Your task to perform on an android device: Open maps Image 0: 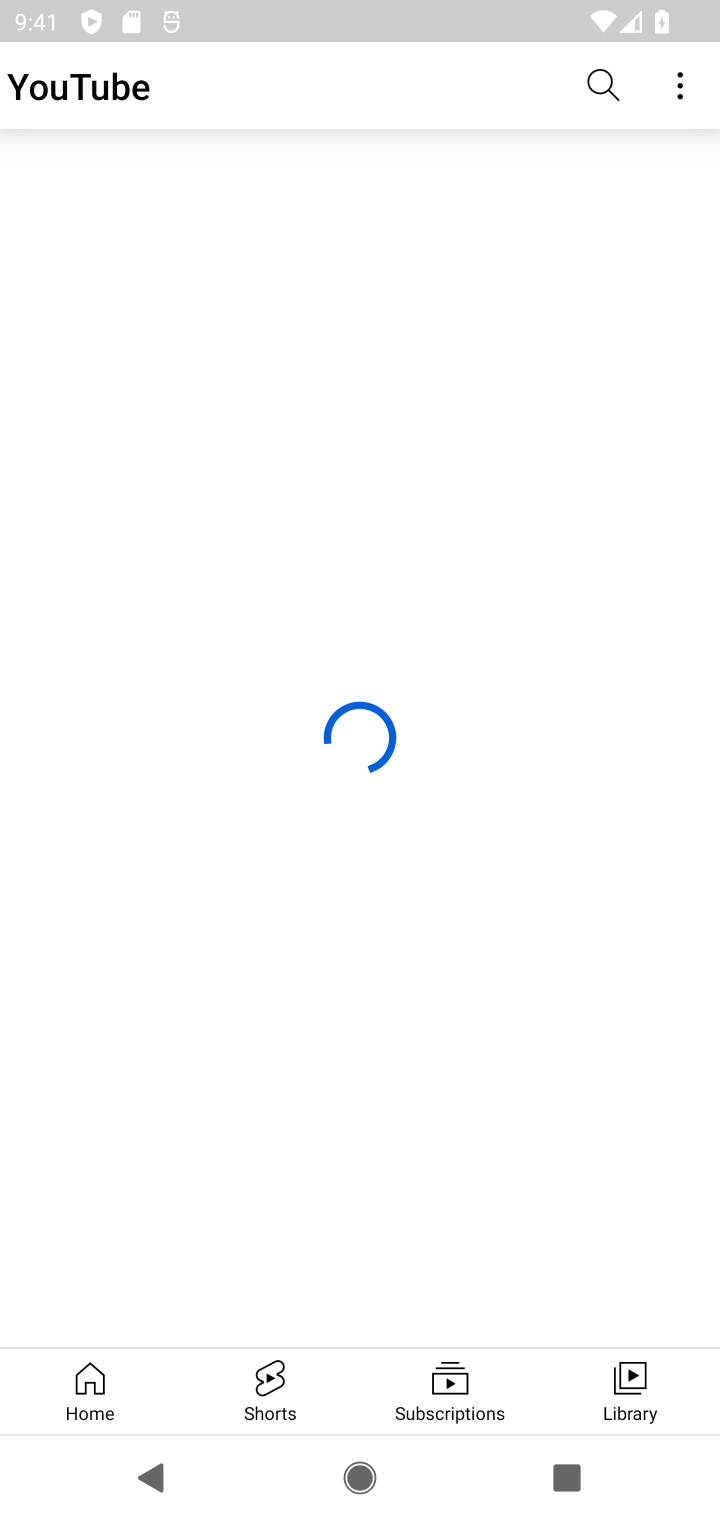
Step 0: click (505, 603)
Your task to perform on an android device: Open maps Image 1: 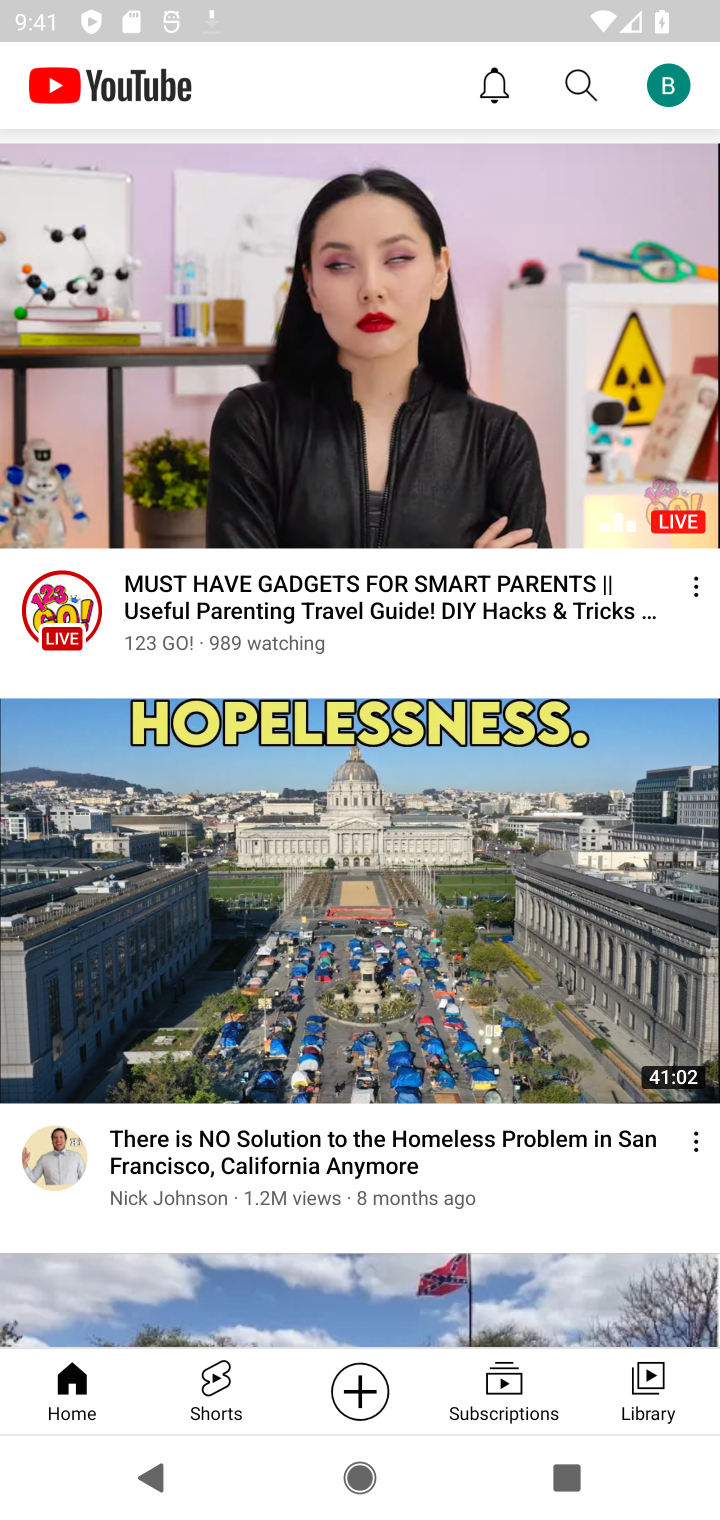
Step 1: press home button
Your task to perform on an android device: Open maps Image 2: 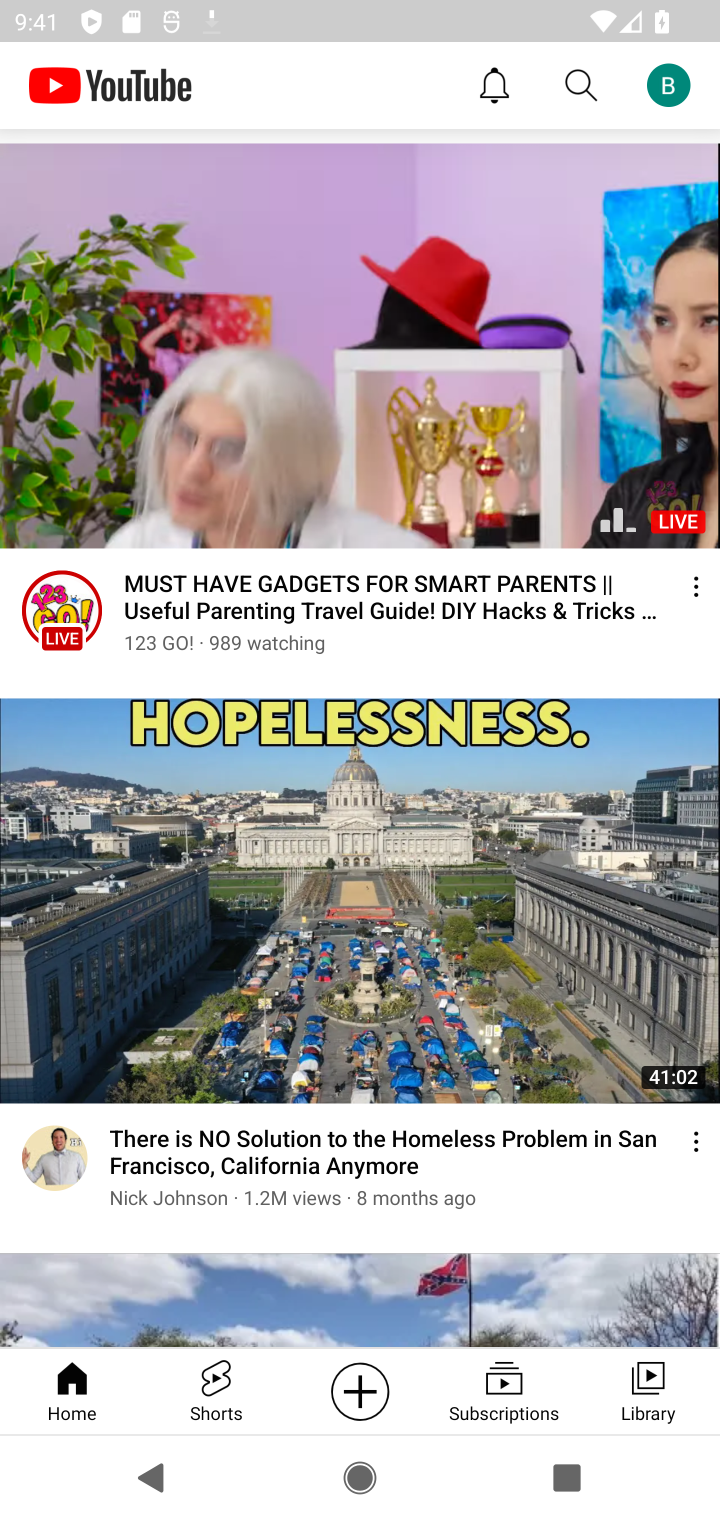
Step 2: click (371, 155)
Your task to perform on an android device: Open maps Image 3: 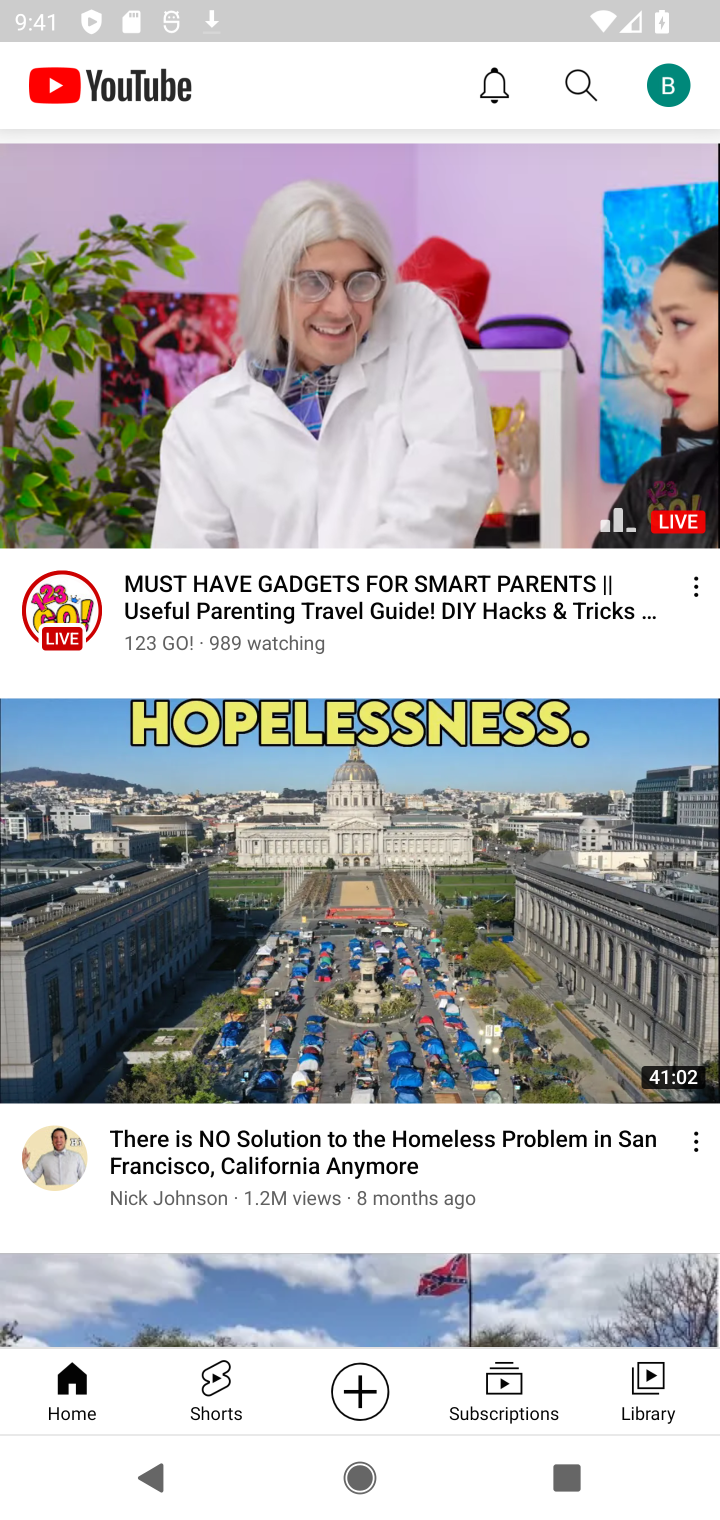
Step 3: drag from (243, 1199) to (464, 332)
Your task to perform on an android device: Open maps Image 4: 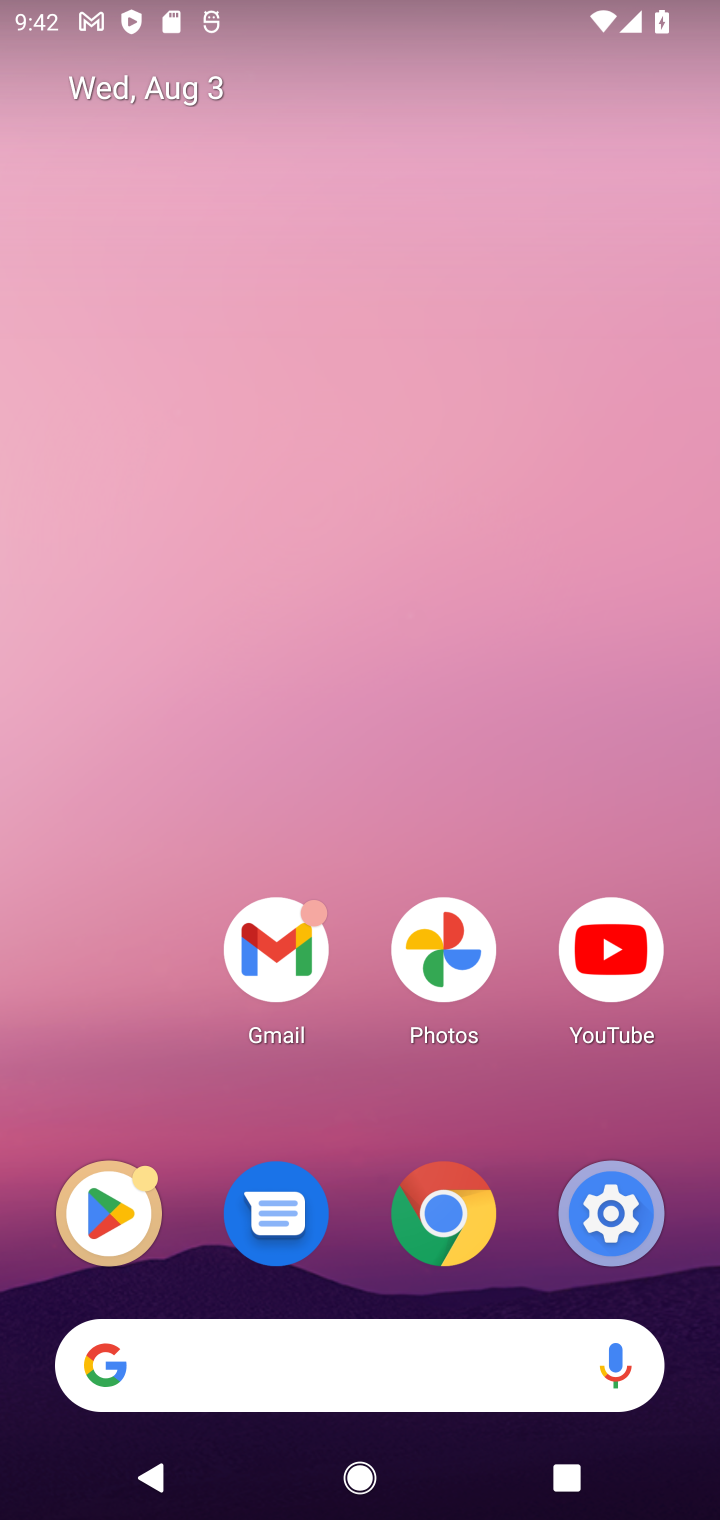
Step 4: click (432, 951)
Your task to perform on an android device: Open maps Image 5: 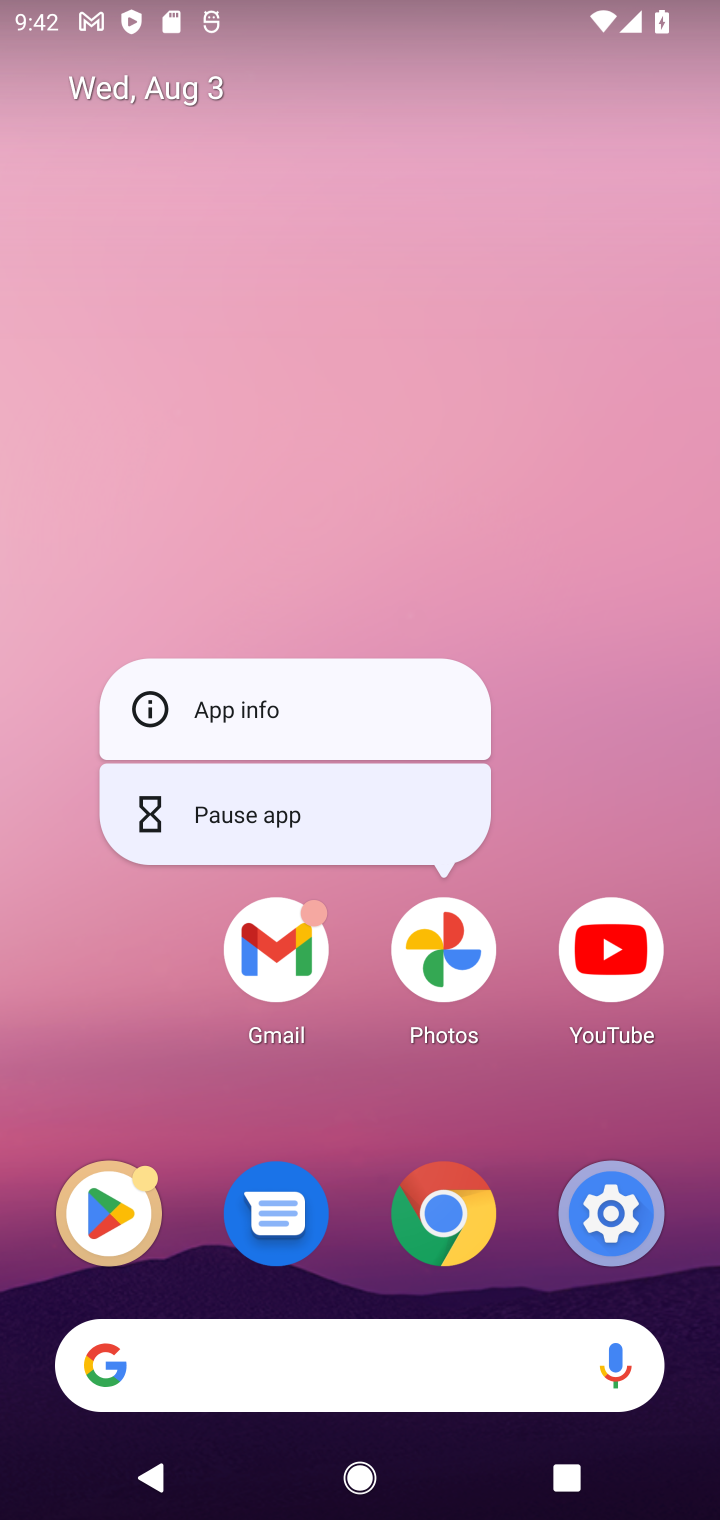
Step 5: click (253, 714)
Your task to perform on an android device: Open maps Image 6: 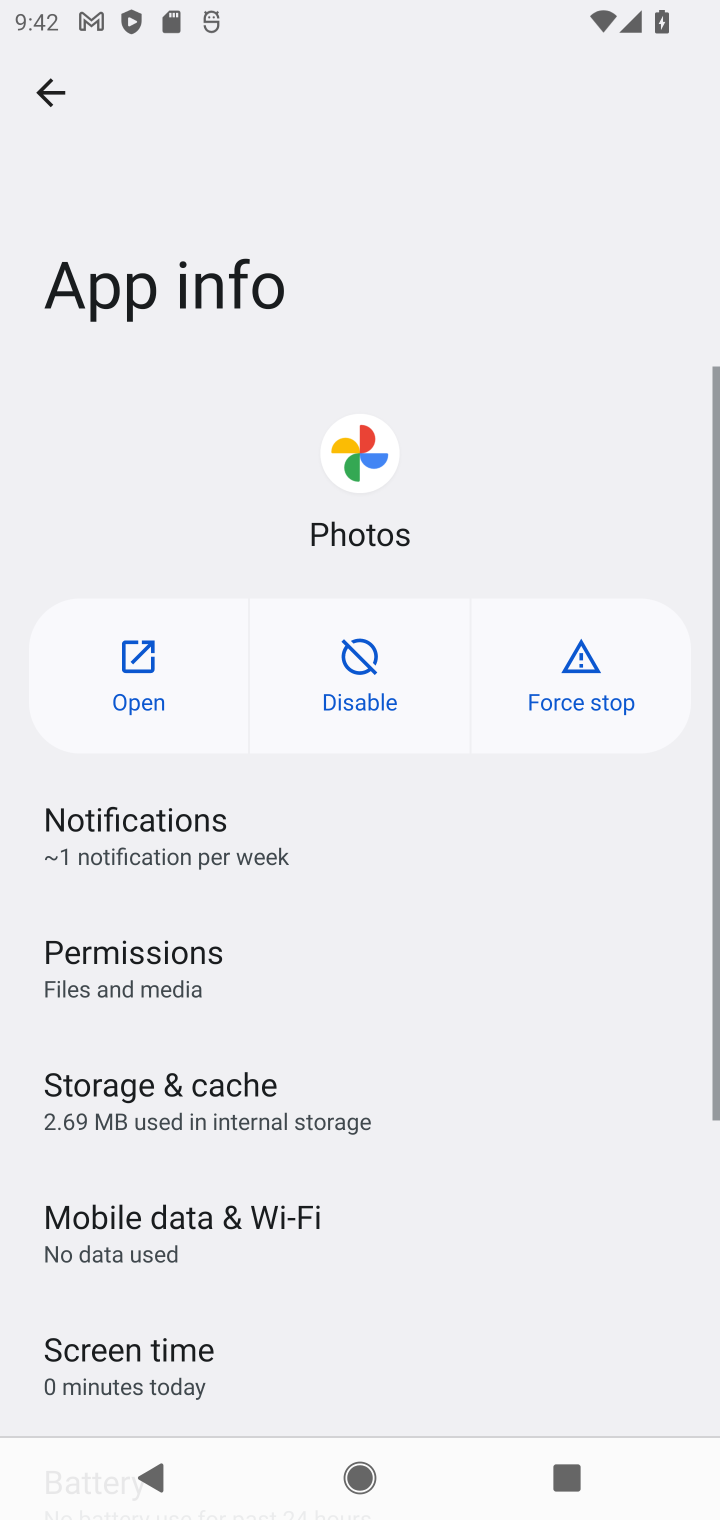
Step 6: click (161, 710)
Your task to perform on an android device: Open maps Image 7: 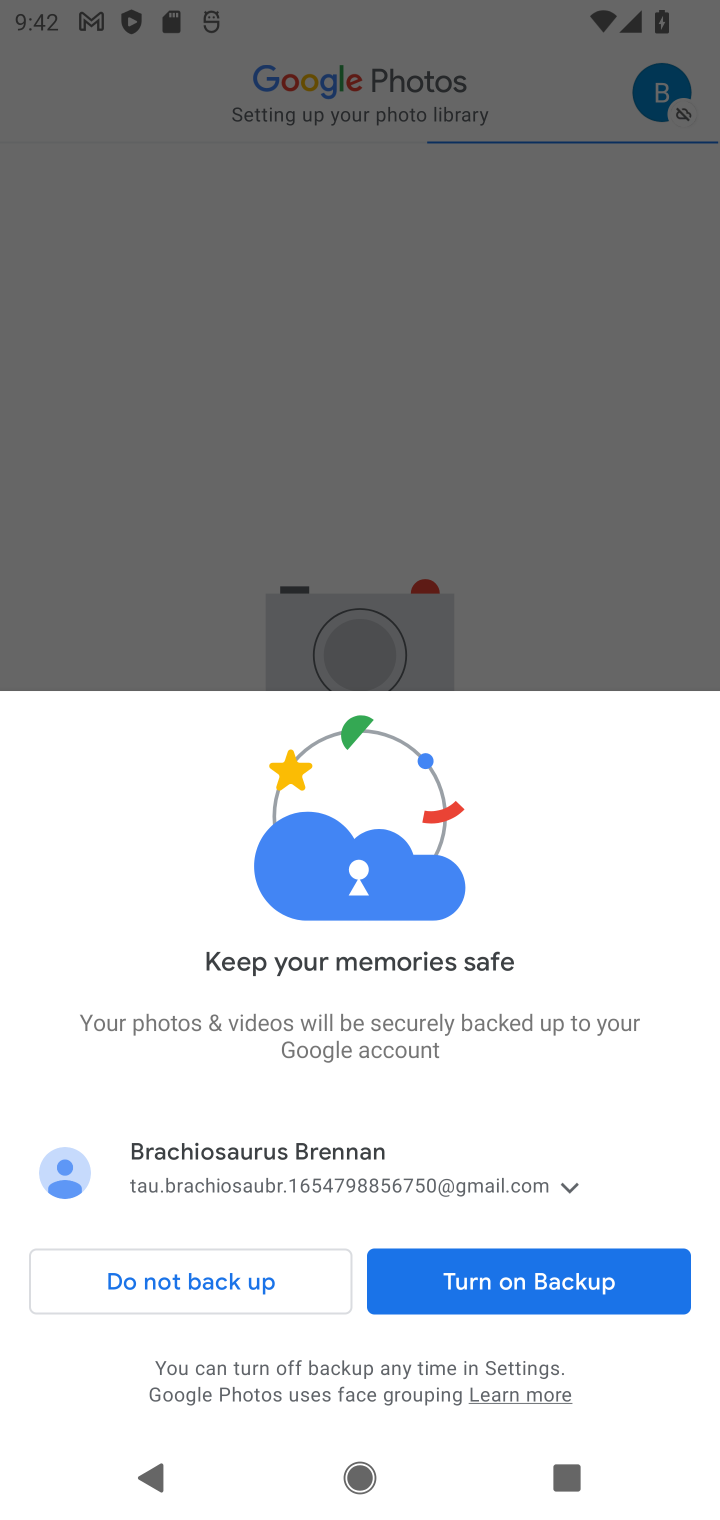
Step 7: press home button
Your task to perform on an android device: Open maps Image 8: 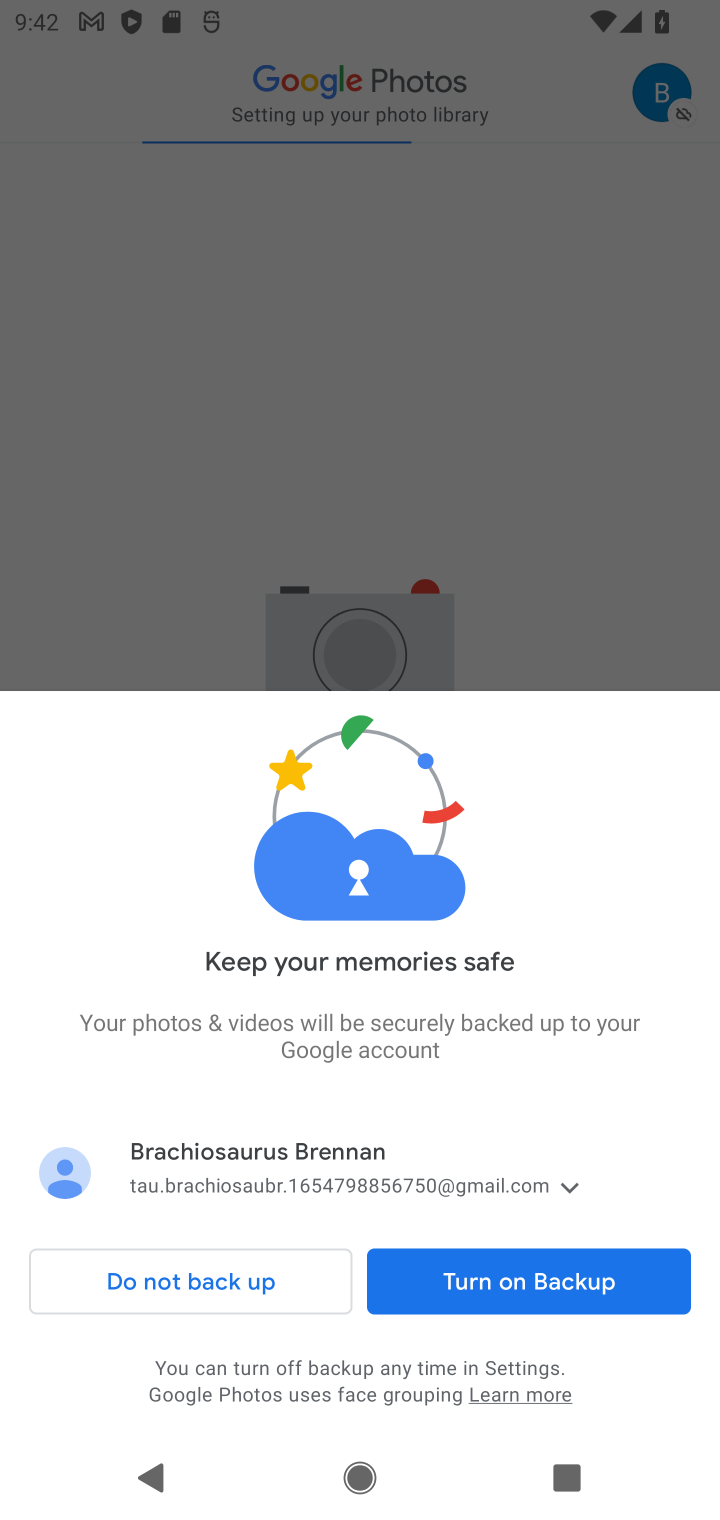
Step 8: drag from (405, 1275) to (579, 438)
Your task to perform on an android device: Open maps Image 9: 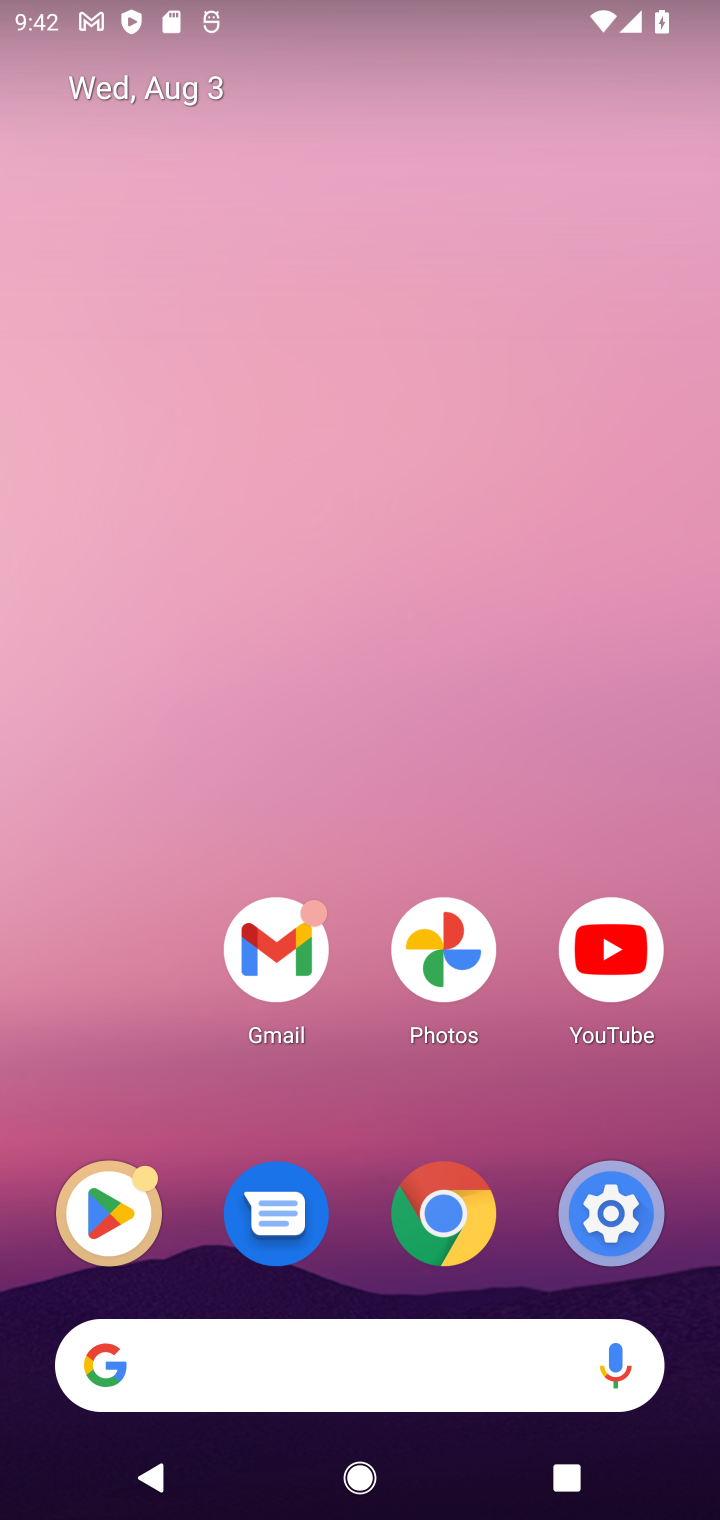
Step 9: drag from (340, 1241) to (368, 305)
Your task to perform on an android device: Open maps Image 10: 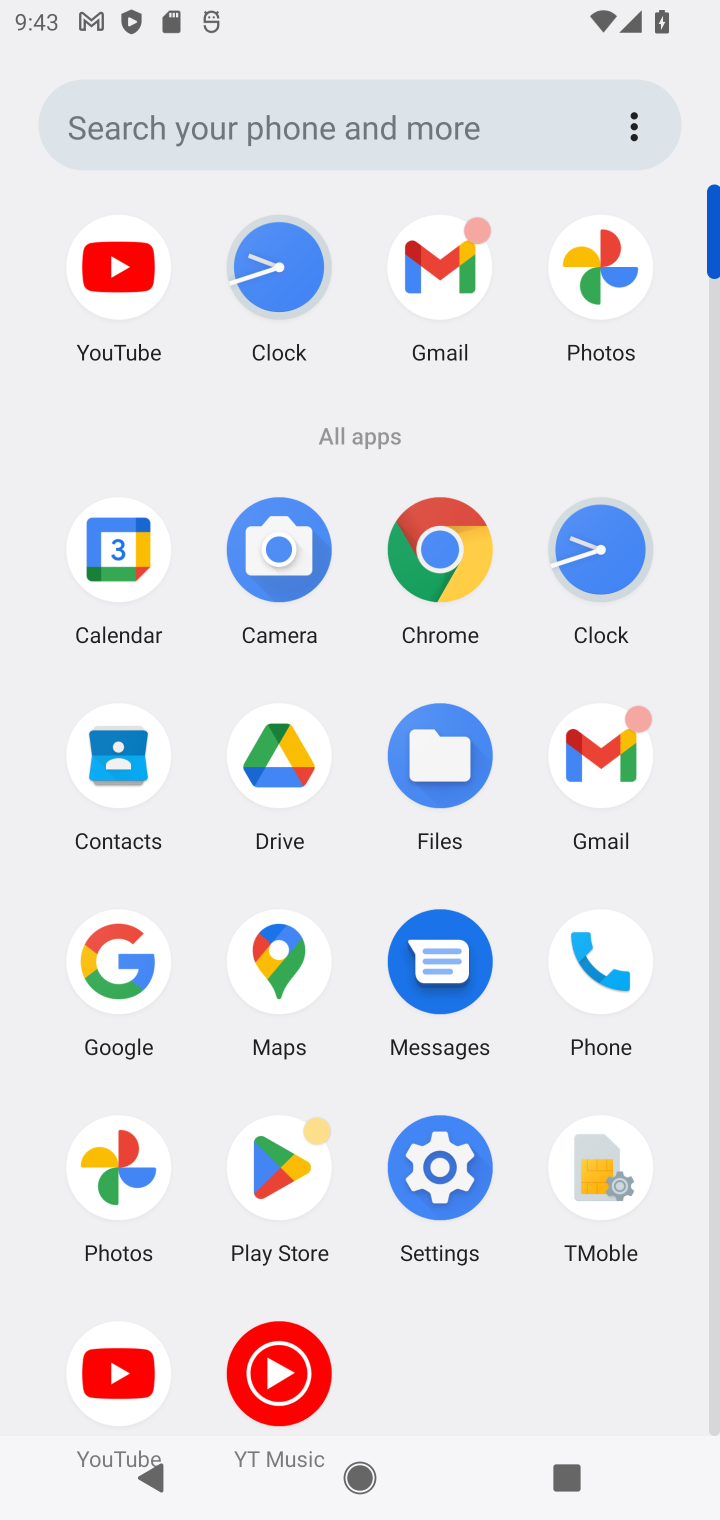
Step 10: click (270, 968)
Your task to perform on an android device: Open maps Image 11: 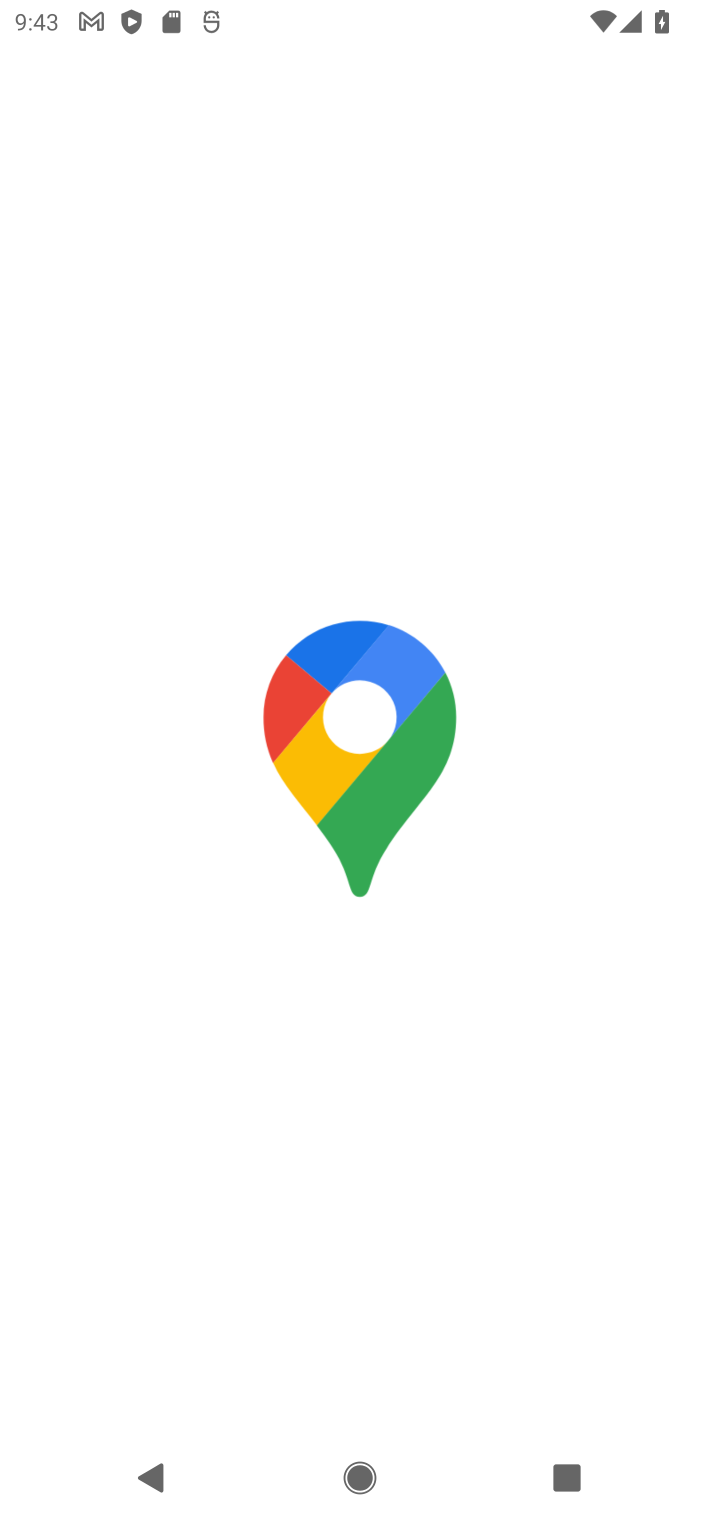
Step 11: click (277, 966)
Your task to perform on an android device: Open maps Image 12: 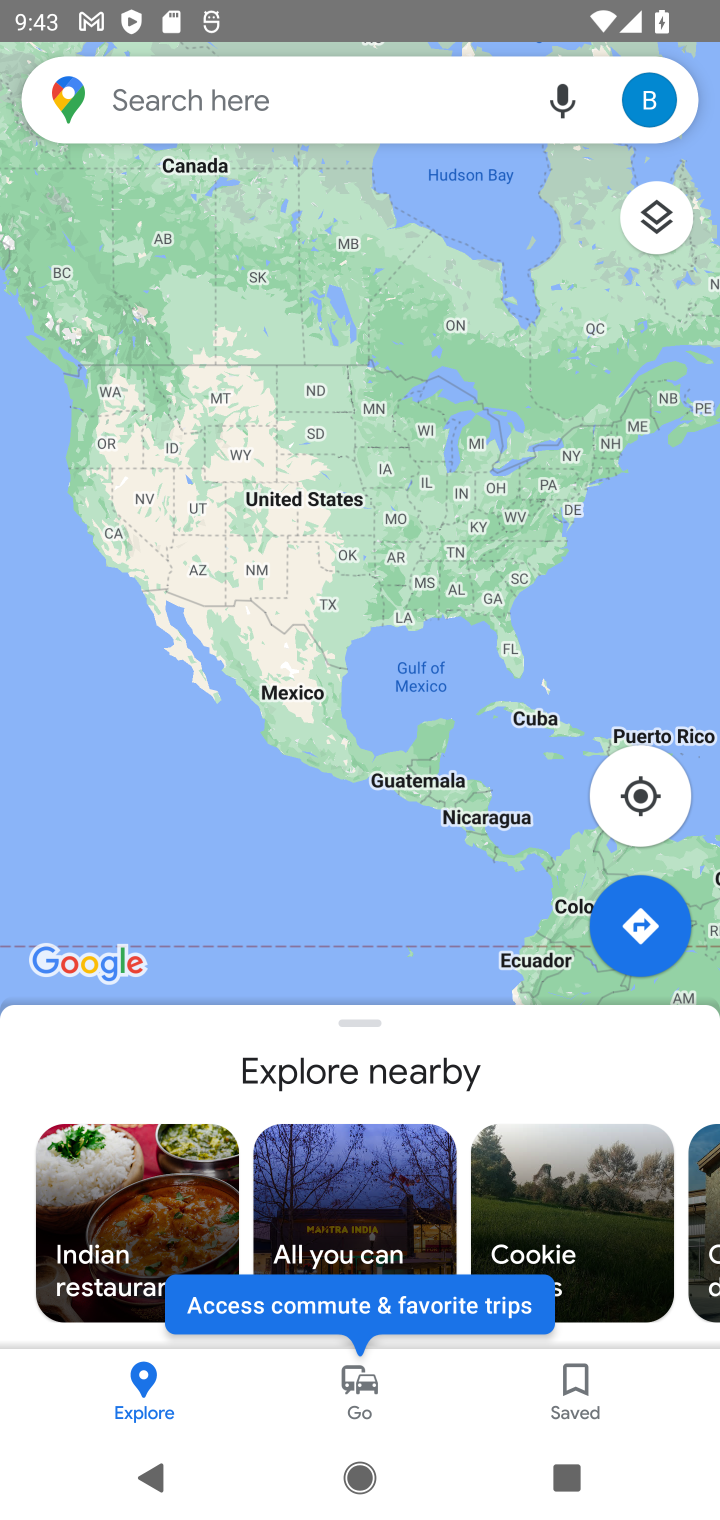
Step 12: click (496, 645)
Your task to perform on an android device: Open maps Image 13: 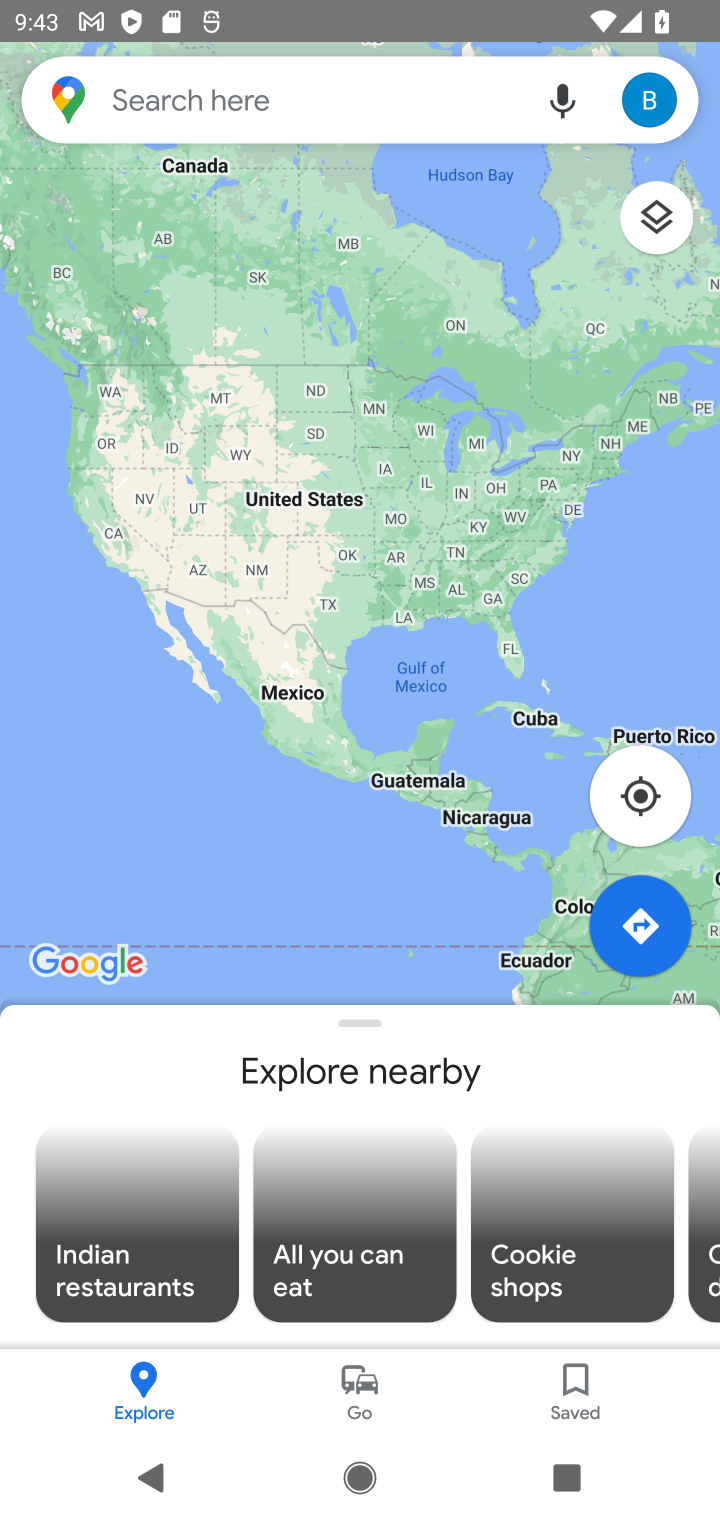
Step 13: task complete